Your task to perform on an android device: visit the assistant section in the google photos Image 0: 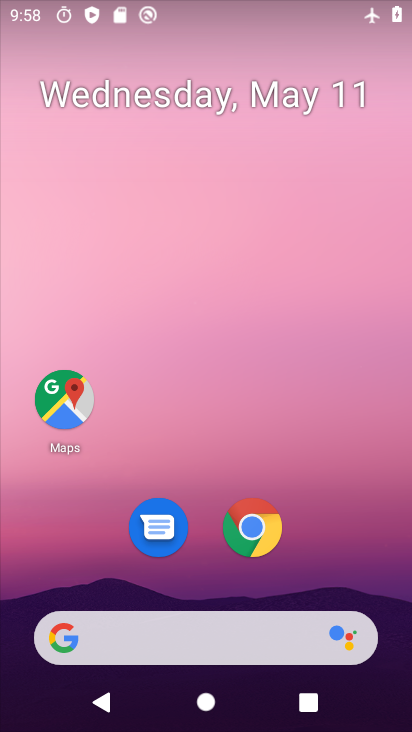
Step 0: drag from (289, 540) to (269, 88)
Your task to perform on an android device: visit the assistant section in the google photos Image 1: 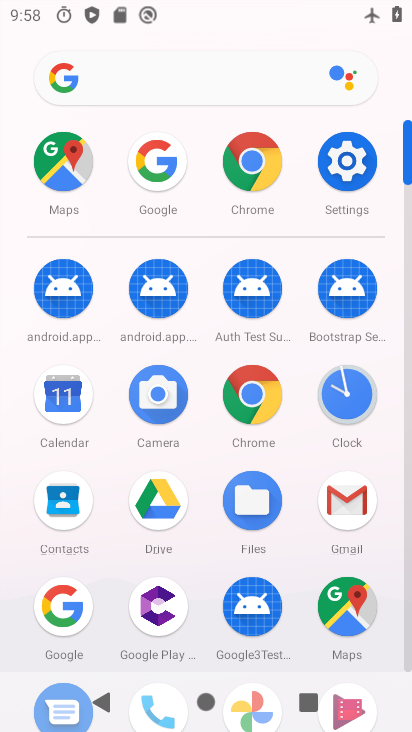
Step 1: drag from (281, 377) to (296, 233)
Your task to perform on an android device: visit the assistant section in the google photos Image 2: 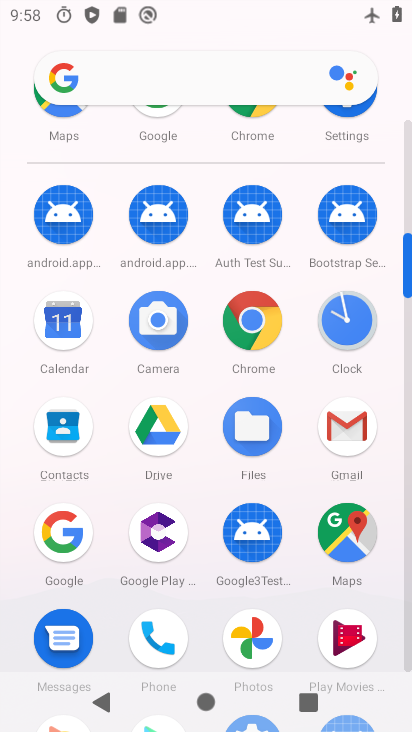
Step 2: drag from (302, 551) to (337, 372)
Your task to perform on an android device: visit the assistant section in the google photos Image 3: 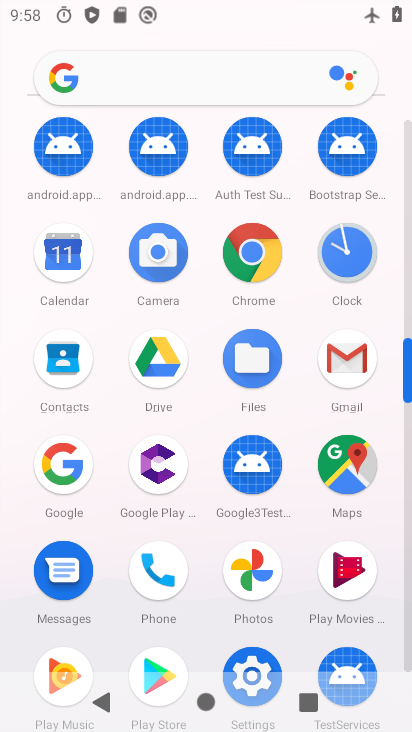
Step 3: click (248, 582)
Your task to perform on an android device: visit the assistant section in the google photos Image 4: 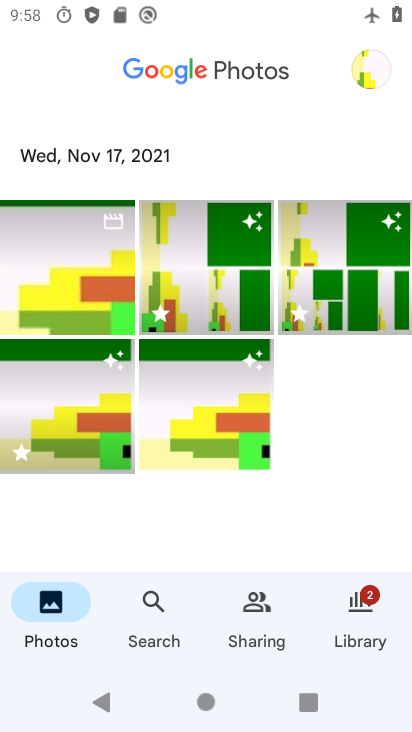
Step 4: click (359, 68)
Your task to perform on an android device: visit the assistant section in the google photos Image 5: 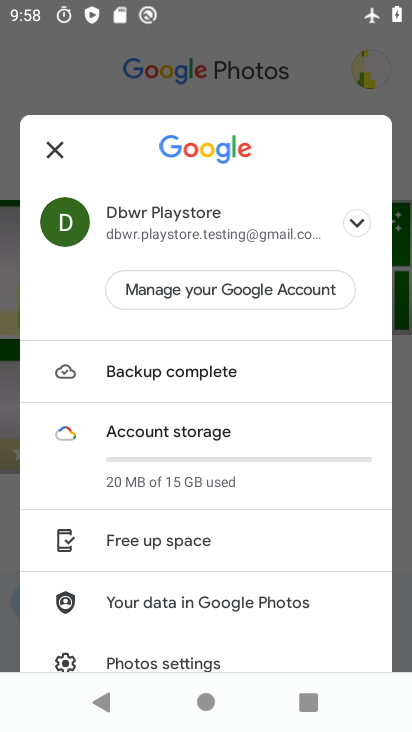
Step 5: task complete